Your task to perform on an android device: find which apps use the phone's location Image 0: 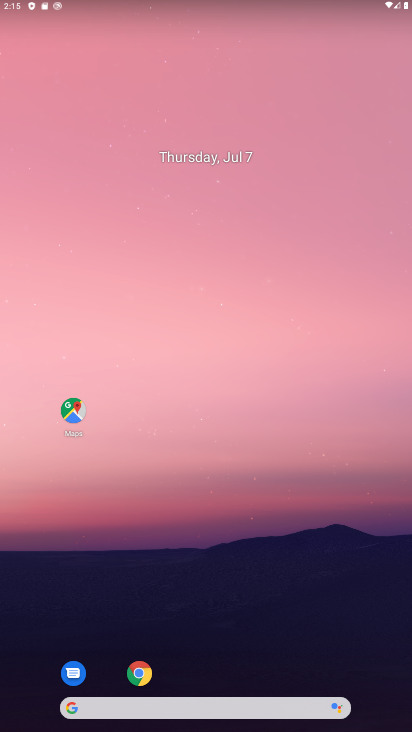
Step 0: drag from (196, 700) to (164, 76)
Your task to perform on an android device: find which apps use the phone's location Image 1: 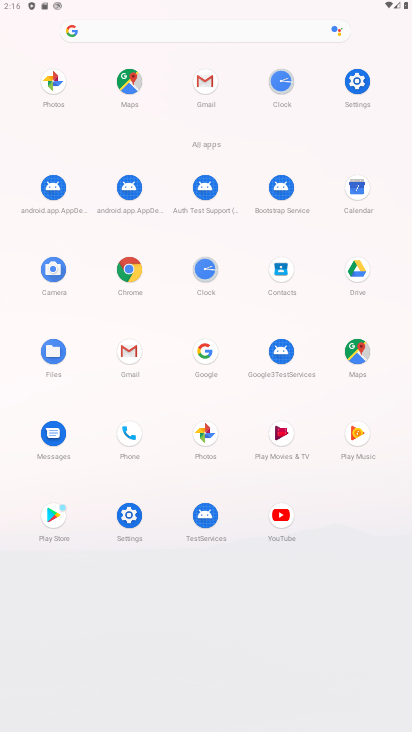
Step 1: click (354, 88)
Your task to perform on an android device: find which apps use the phone's location Image 2: 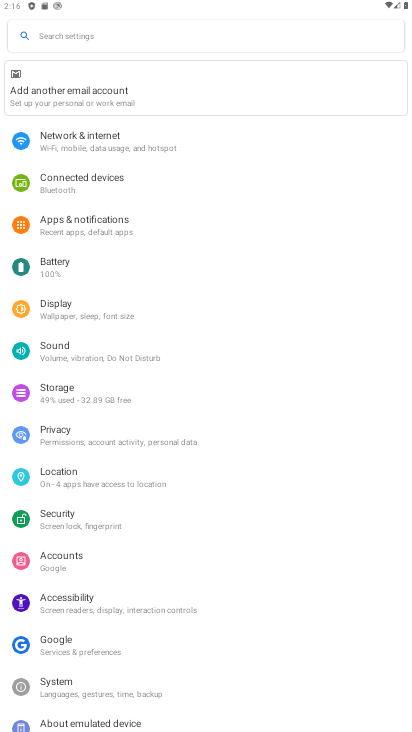
Step 2: click (64, 223)
Your task to perform on an android device: find which apps use the phone's location Image 3: 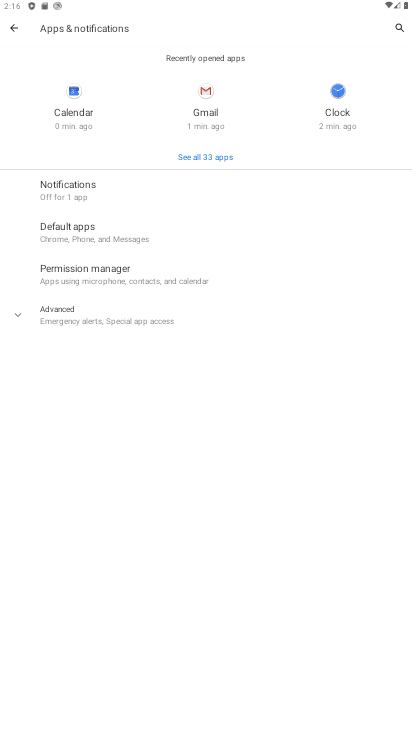
Step 3: click (13, 34)
Your task to perform on an android device: find which apps use the phone's location Image 4: 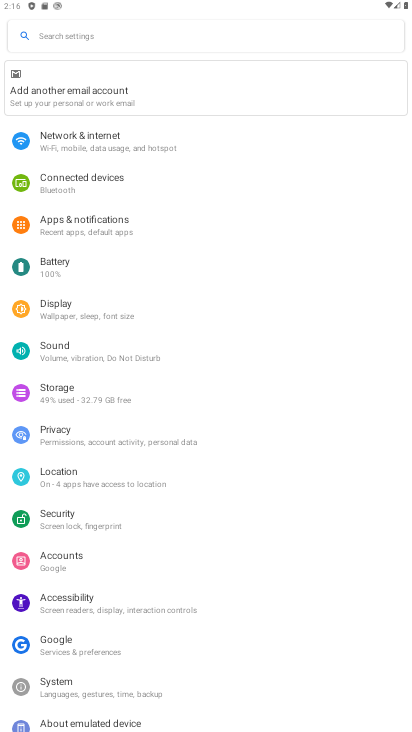
Step 4: click (55, 481)
Your task to perform on an android device: find which apps use the phone's location Image 5: 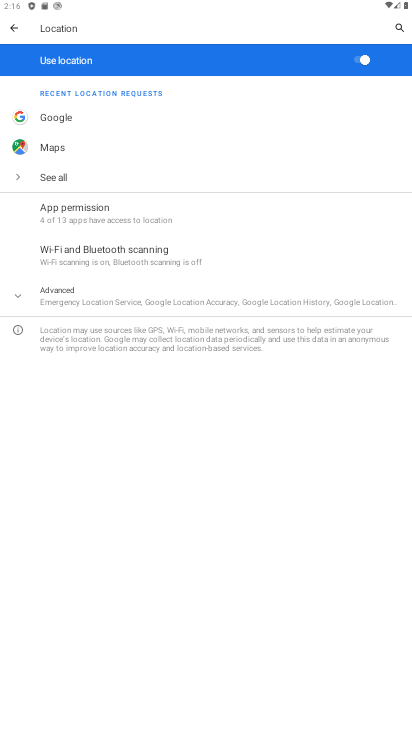
Step 5: click (78, 209)
Your task to perform on an android device: find which apps use the phone's location Image 6: 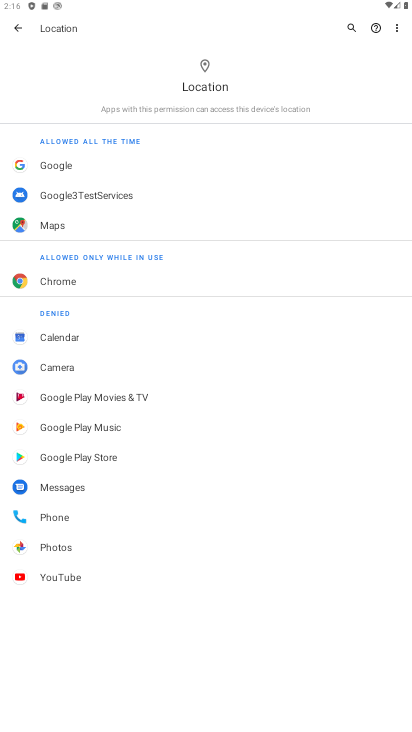
Step 6: task complete